Your task to perform on an android device: Open location settings Image 0: 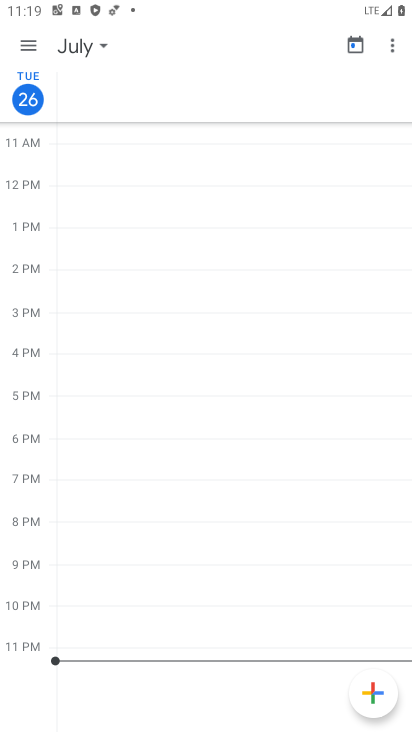
Step 0: press home button
Your task to perform on an android device: Open location settings Image 1: 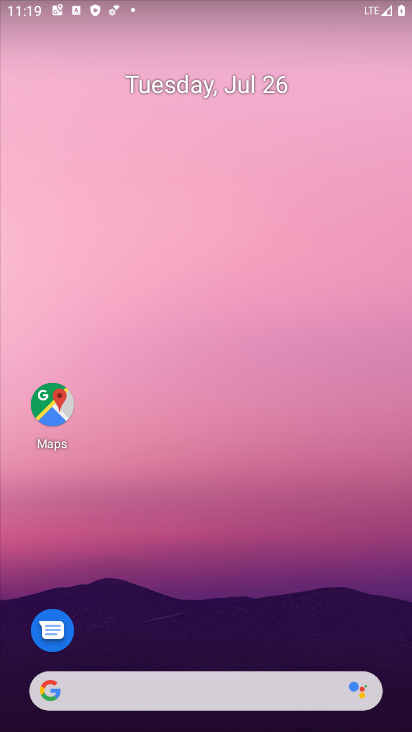
Step 1: drag from (265, 707) to (142, 29)
Your task to perform on an android device: Open location settings Image 2: 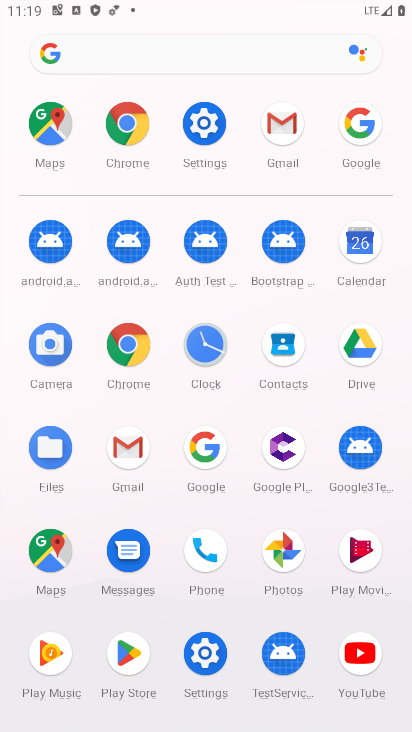
Step 2: click (213, 140)
Your task to perform on an android device: Open location settings Image 3: 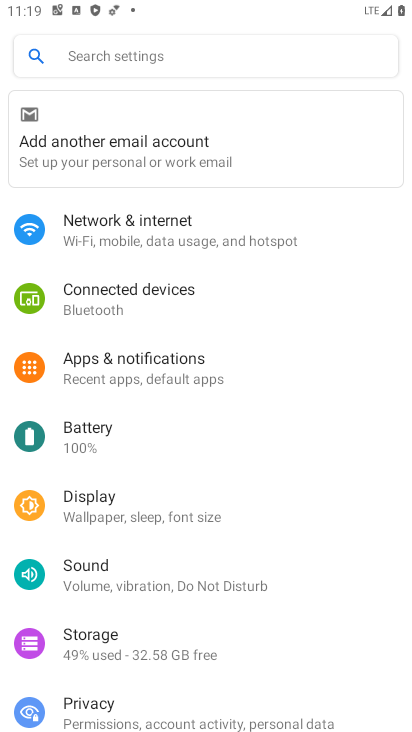
Step 3: drag from (198, 671) to (145, 328)
Your task to perform on an android device: Open location settings Image 4: 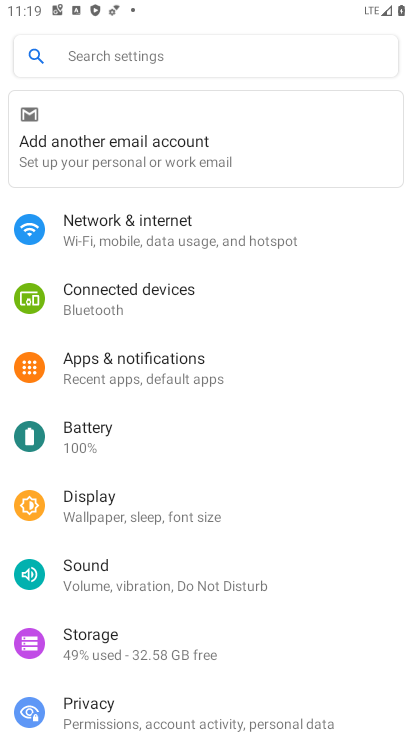
Step 4: drag from (234, 574) to (182, 281)
Your task to perform on an android device: Open location settings Image 5: 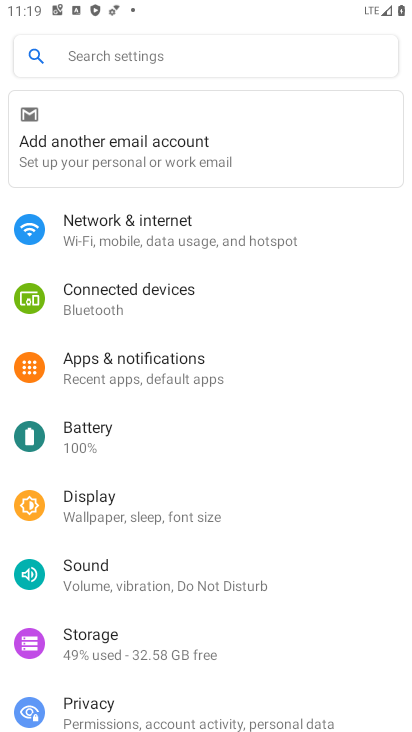
Step 5: drag from (261, 609) to (176, 164)
Your task to perform on an android device: Open location settings Image 6: 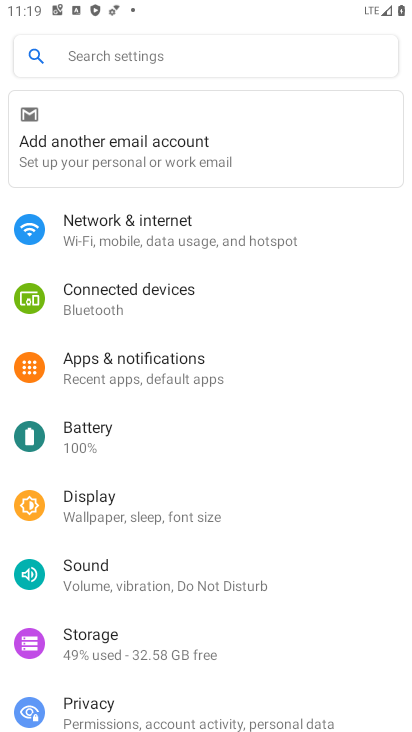
Step 6: drag from (255, 672) to (176, 203)
Your task to perform on an android device: Open location settings Image 7: 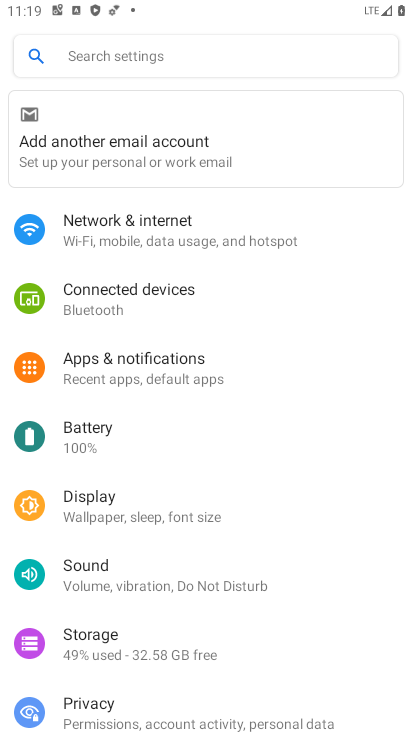
Step 7: drag from (237, 320) to (26, 262)
Your task to perform on an android device: Open location settings Image 8: 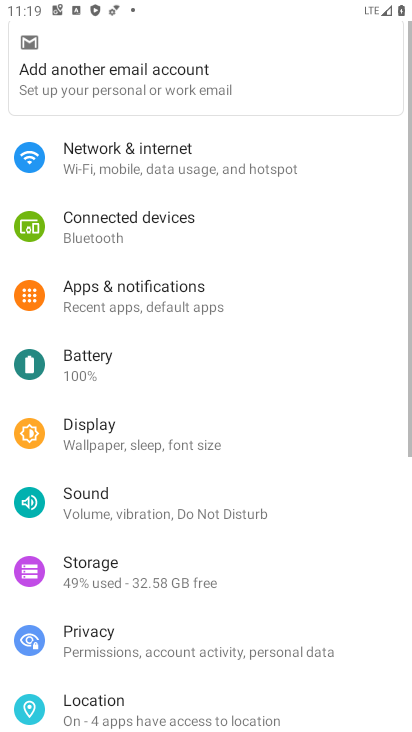
Step 8: drag from (236, 604) to (122, 202)
Your task to perform on an android device: Open location settings Image 9: 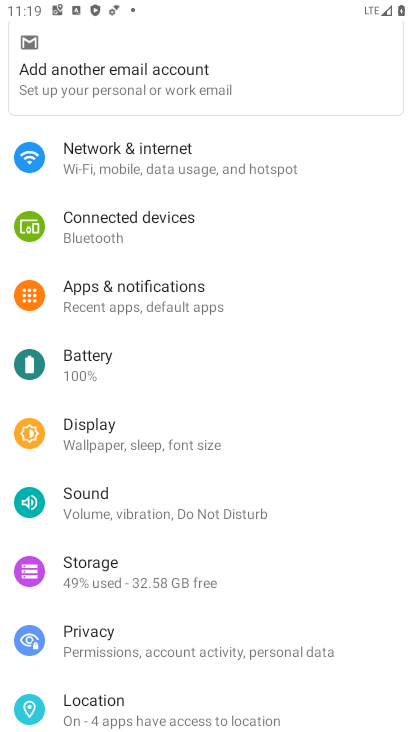
Step 9: click (99, 696)
Your task to perform on an android device: Open location settings Image 10: 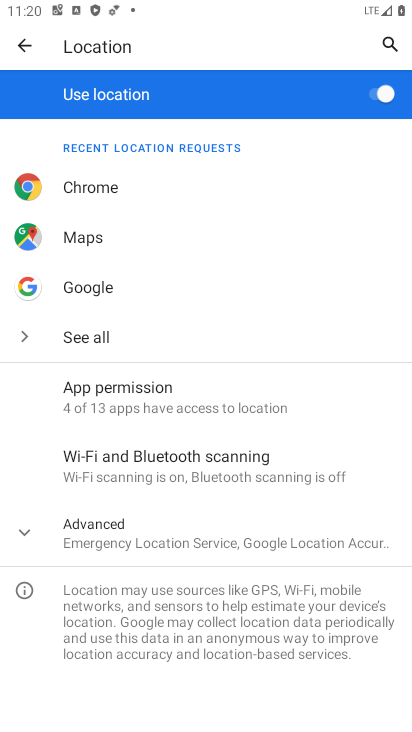
Step 10: task complete